Your task to perform on an android device: Open Google Maps and go to "Timeline" Image 0: 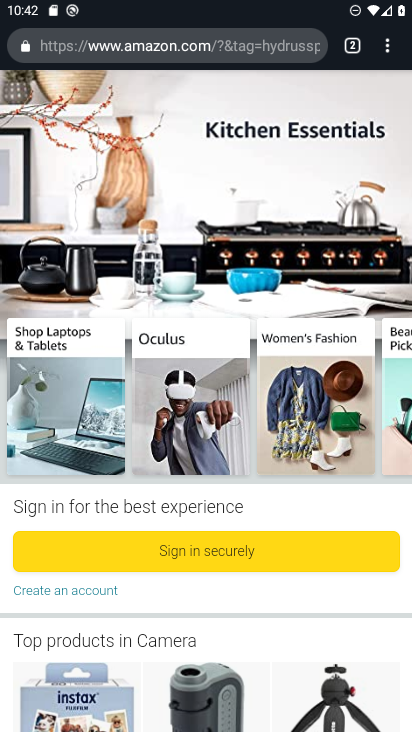
Step 0: press home button
Your task to perform on an android device: Open Google Maps and go to "Timeline" Image 1: 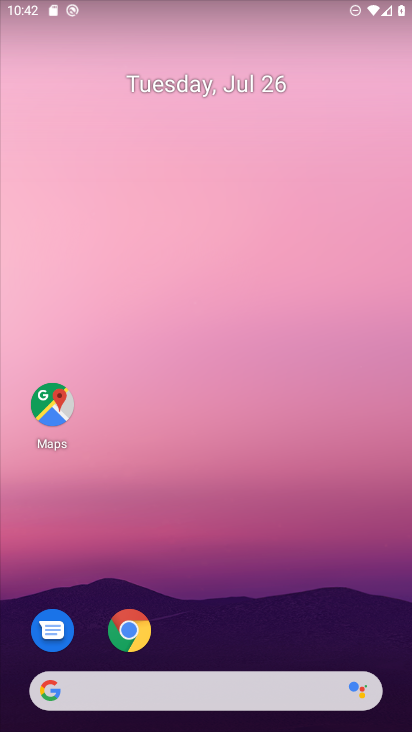
Step 1: click (53, 408)
Your task to perform on an android device: Open Google Maps and go to "Timeline" Image 2: 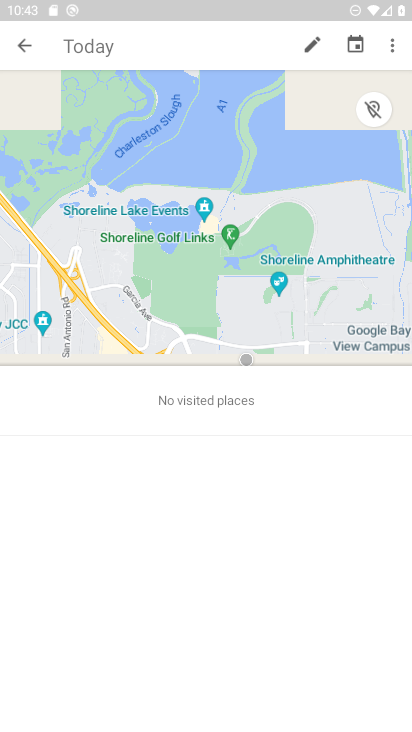
Step 2: press back button
Your task to perform on an android device: Open Google Maps and go to "Timeline" Image 3: 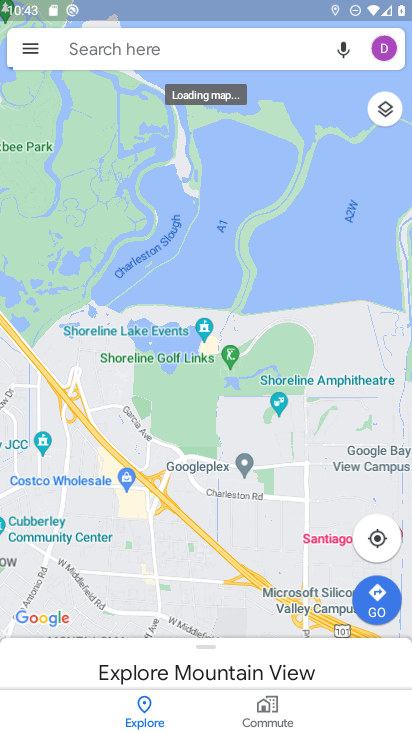
Step 3: click (32, 50)
Your task to perform on an android device: Open Google Maps and go to "Timeline" Image 4: 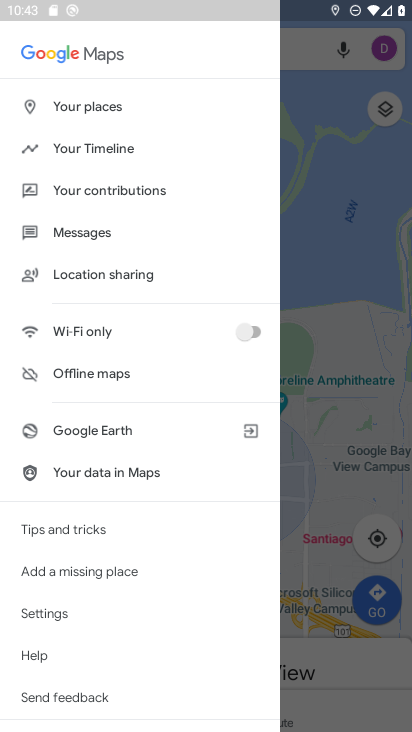
Step 4: click (86, 144)
Your task to perform on an android device: Open Google Maps and go to "Timeline" Image 5: 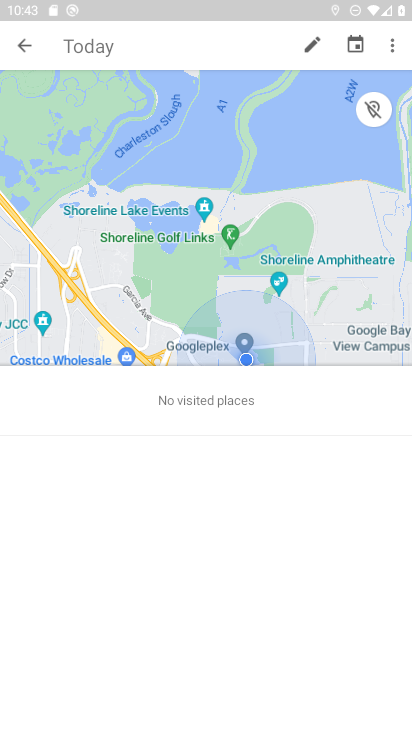
Step 5: task complete